Your task to perform on an android device: Open Google Maps Image 0: 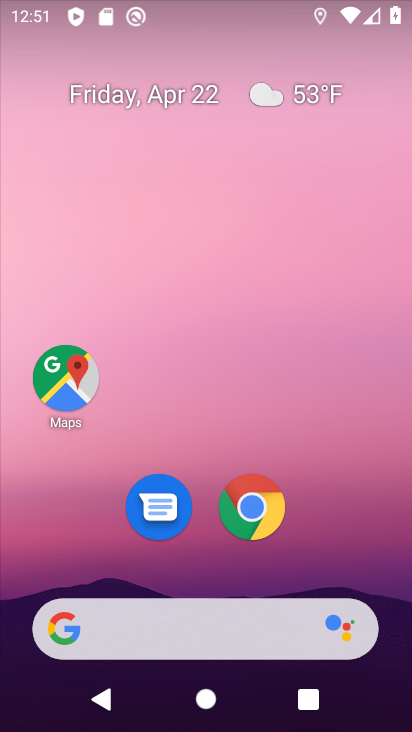
Step 0: click (265, 519)
Your task to perform on an android device: Open Google Maps Image 1: 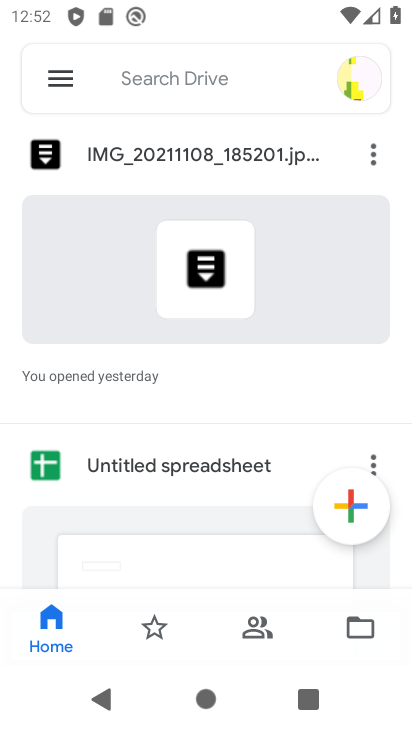
Step 1: press home button
Your task to perform on an android device: Open Google Maps Image 2: 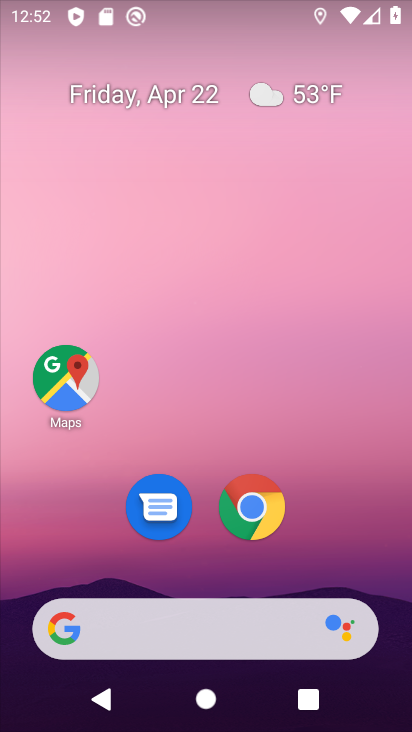
Step 2: click (64, 377)
Your task to perform on an android device: Open Google Maps Image 3: 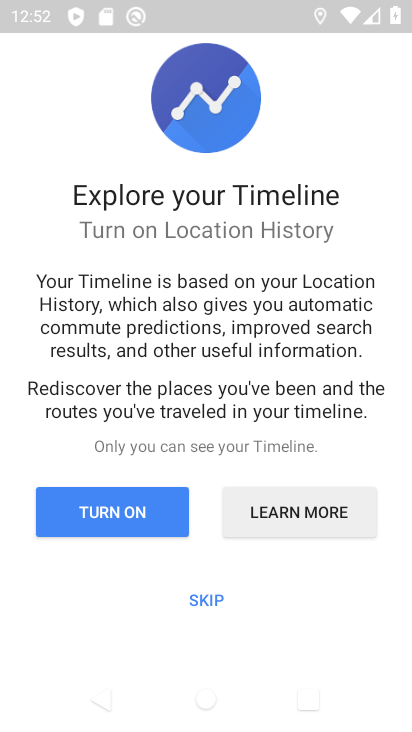
Step 3: task complete